Your task to perform on an android device: See recent photos Image 0: 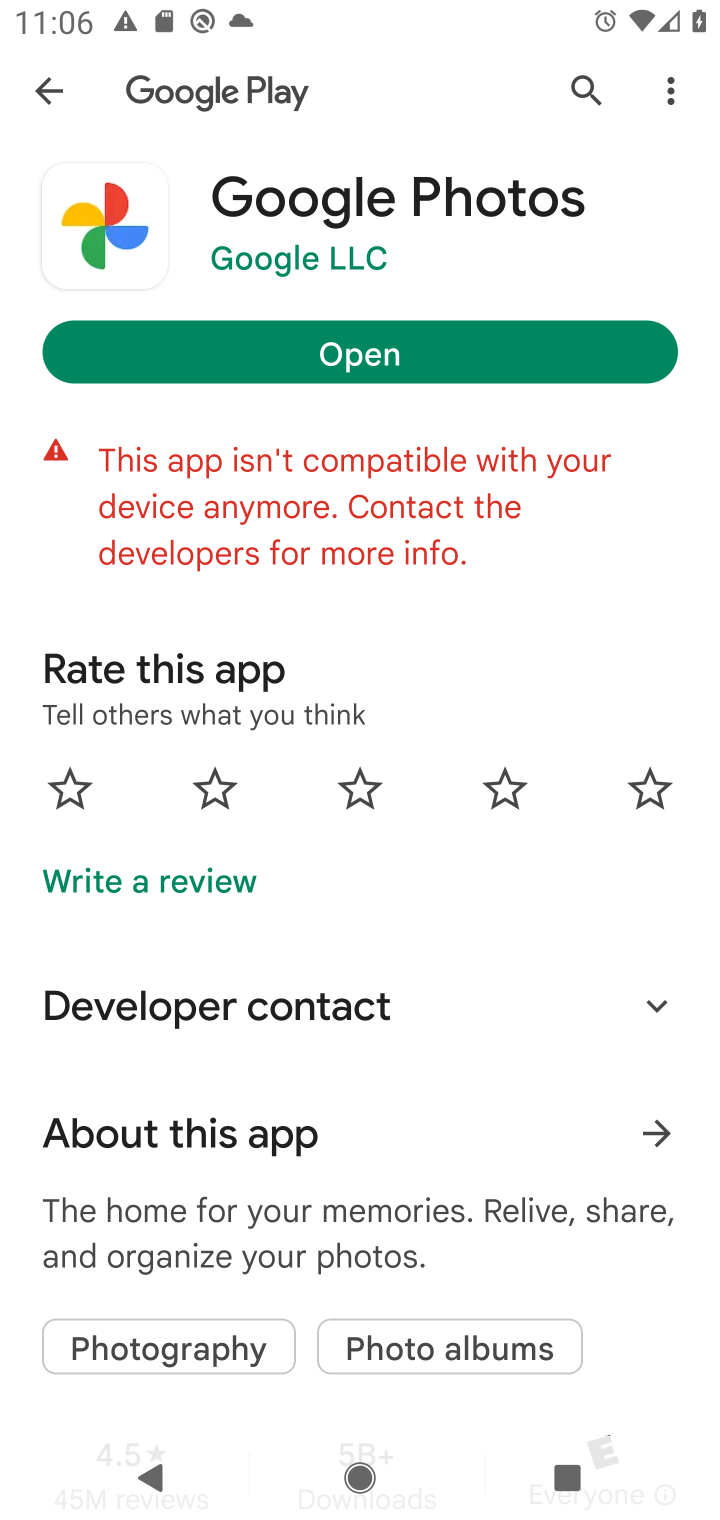
Step 0: press home button
Your task to perform on an android device: See recent photos Image 1: 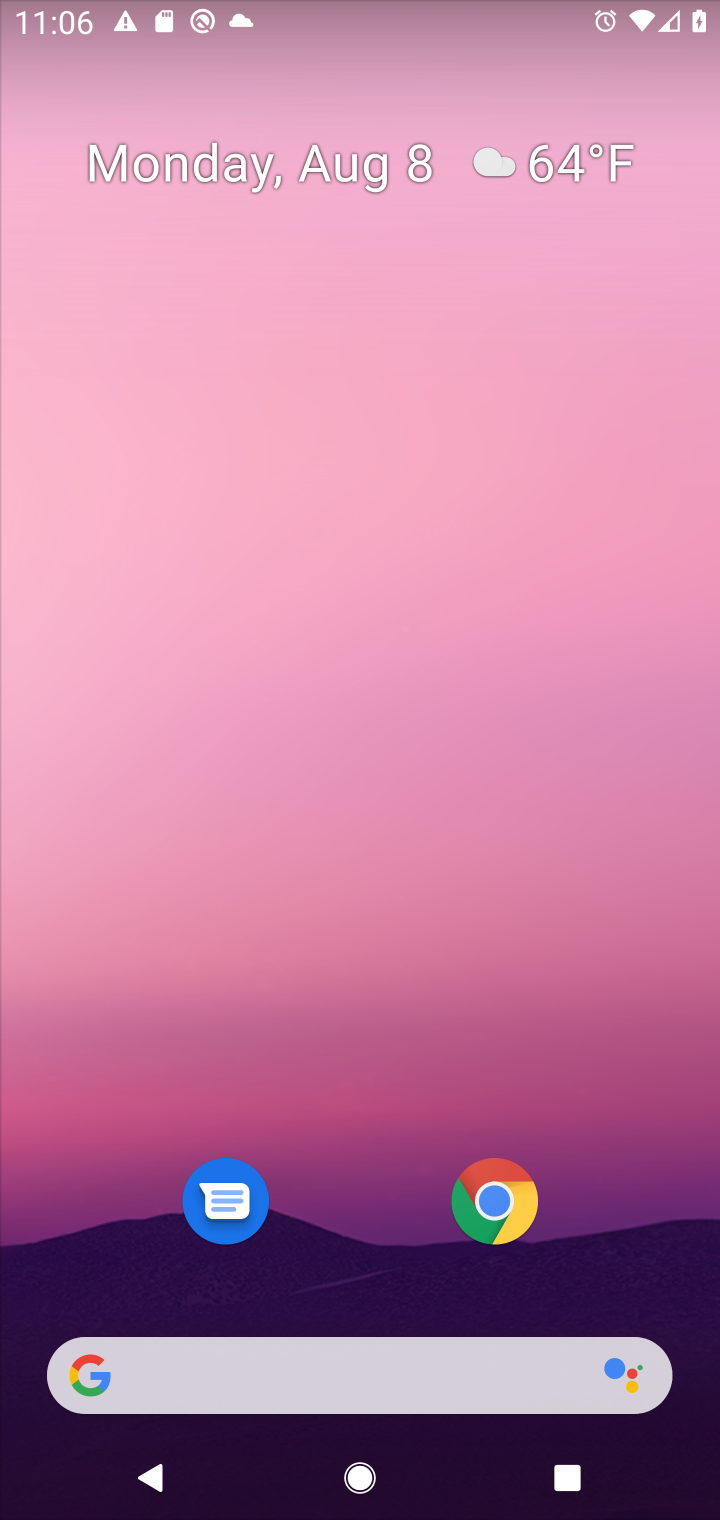
Step 1: drag from (375, 1146) to (425, 89)
Your task to perform on an android device: See recent photos Image 2: 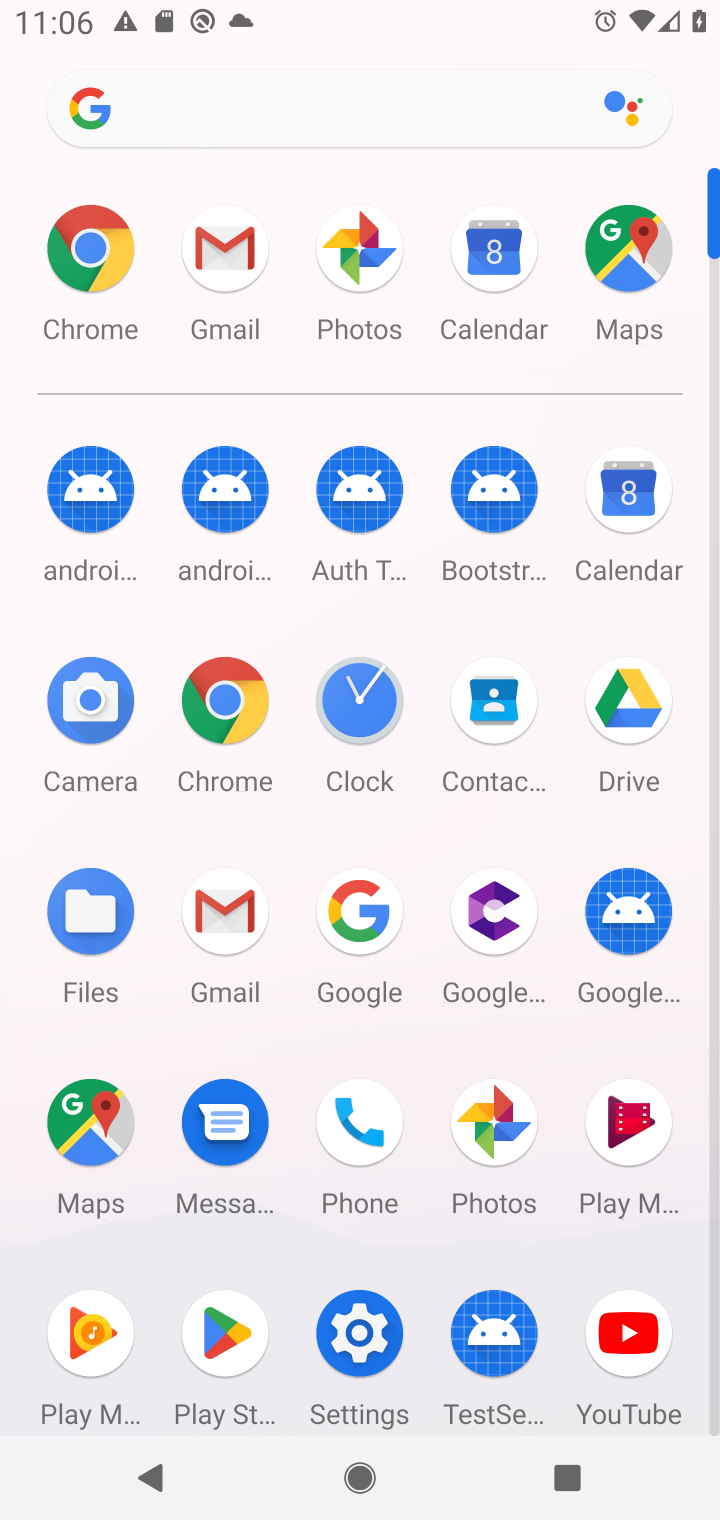
Step 2: click (483, 1140)
Your task to perform on an android device: See recent photos Image 3: 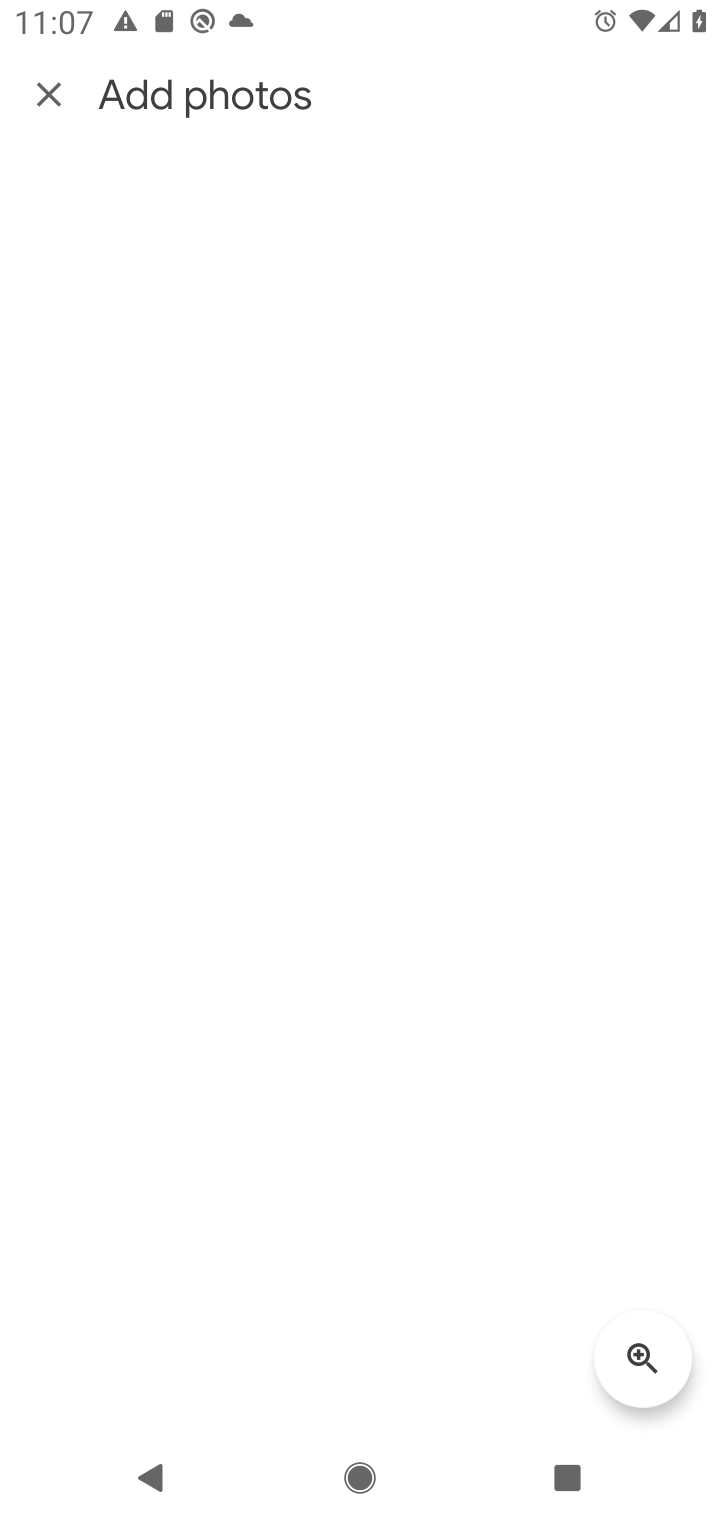
Step 3: task complete